Your task to perform on an android device: turn on location history Image 0: 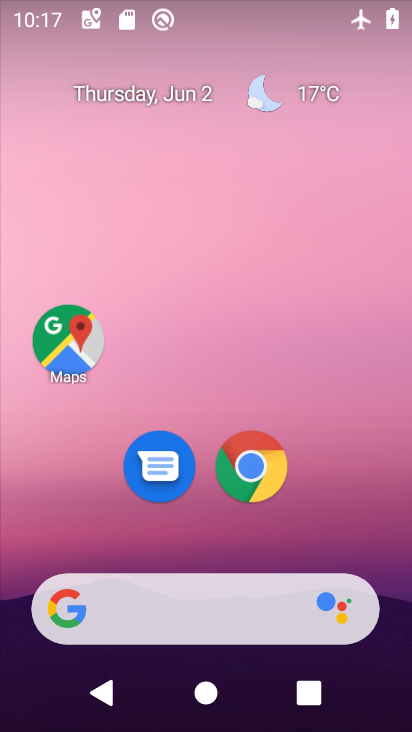
Step 0: drag from (320, 539) to (322, 82)
Your task to perform on an android device: turn on location history Image 1: 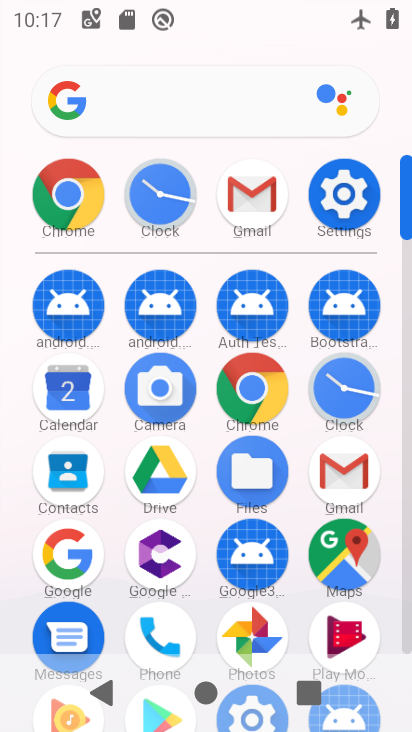
Step 1: click (323, 185)
Your task to perform on an android device: turn on location history Image 2: 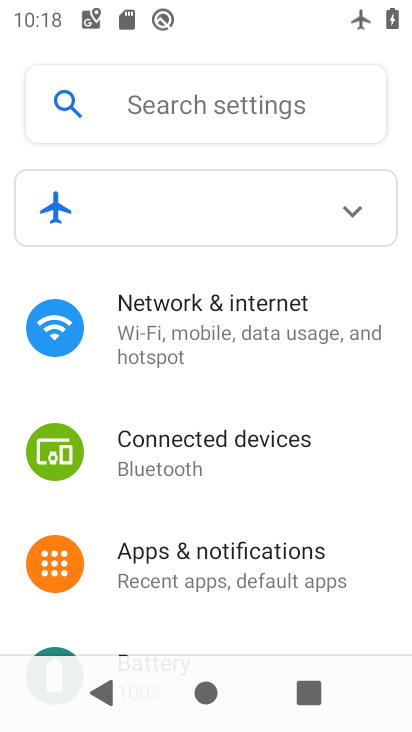
Step 2: drag from (237, 533) to (269, 245)
Your task to perform on an android device: turn on location history Image 3: 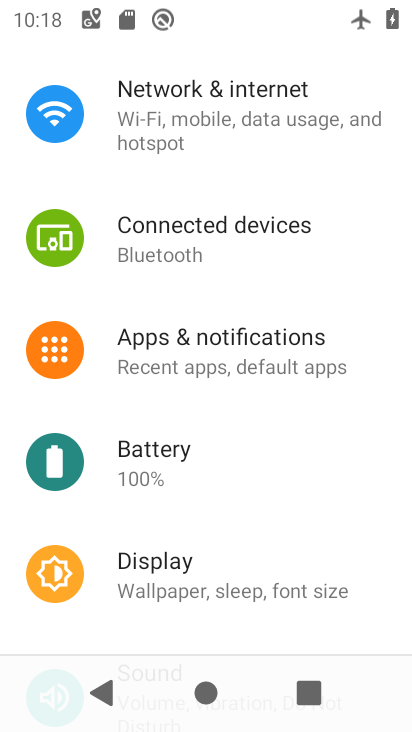
Step 3: drag from (232, 531) to (252, 333)
Your task to perform on an android device: turn on location history Image 4: 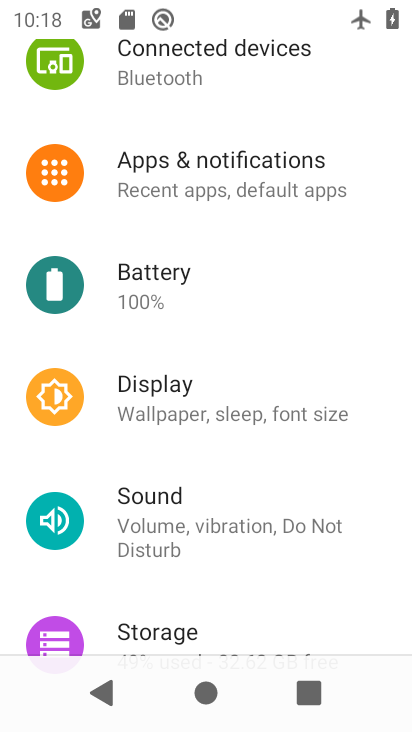
Step 4: drag from (210, 448) to (209, 294)
Your task to perform on an android device: turn on location history Image 5: 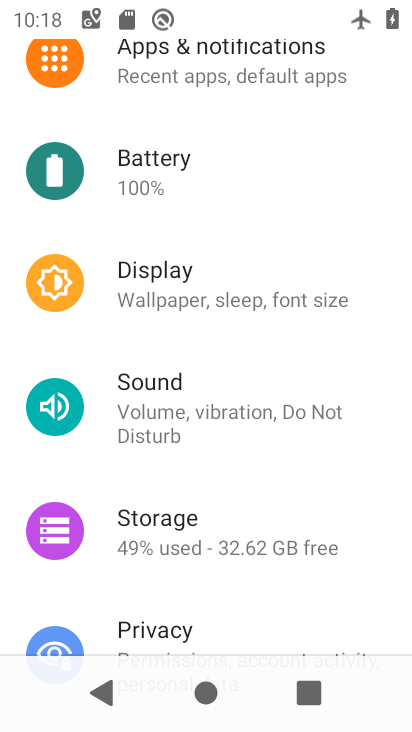
Step 5: drag from (256, 532) to (284, 183)
Your task to perform on an android device: turn on location history Image 6: 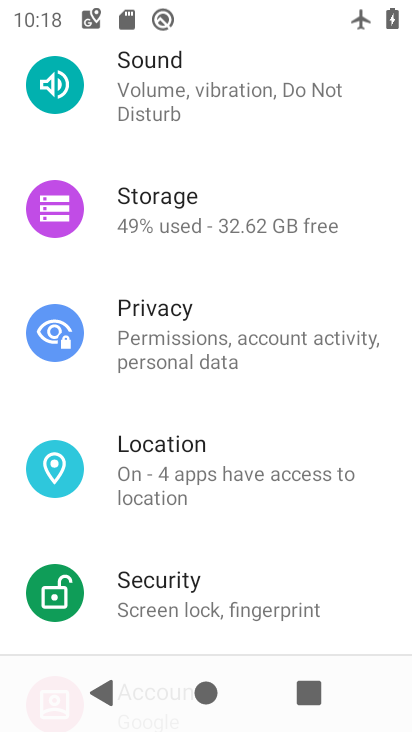
Step 6: click (209, 464)
Your task to perform on an android device: turn on location history Image 7: 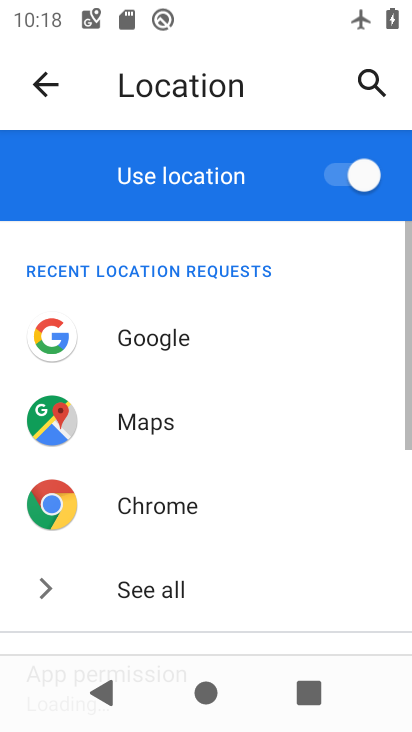
Step 7: drag from (201, 549) to (258, 301)
Your task to perform on an android device: turn on location history Image 8: 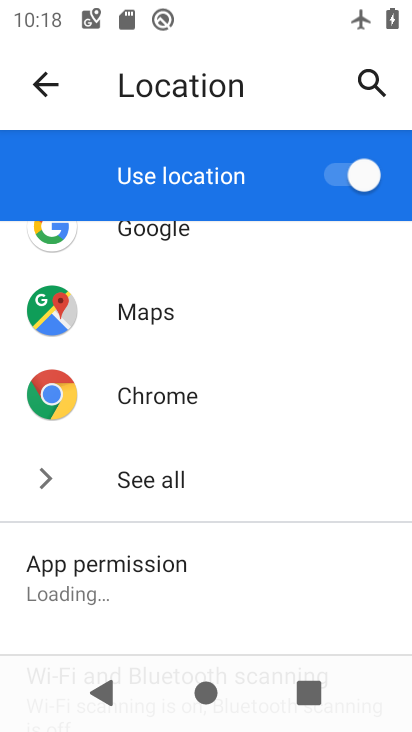
Step 8: drag from (242, 571) to (241, 259)
Your task to perform on an android device: turn on location history Image 9: 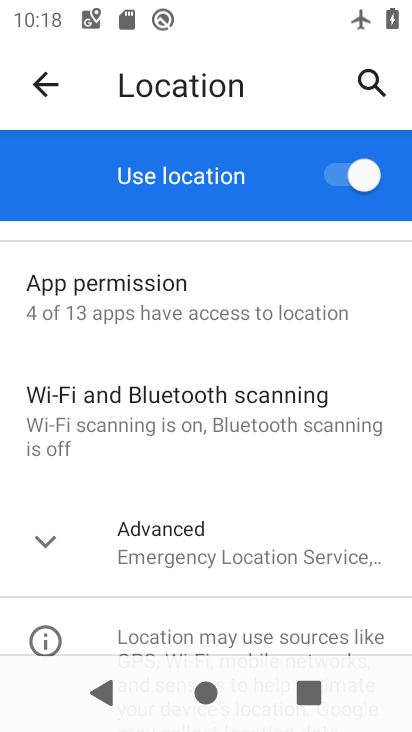
Step 9: click (197, 545)
Your task to perform on an android device: turn on location history Image 10: 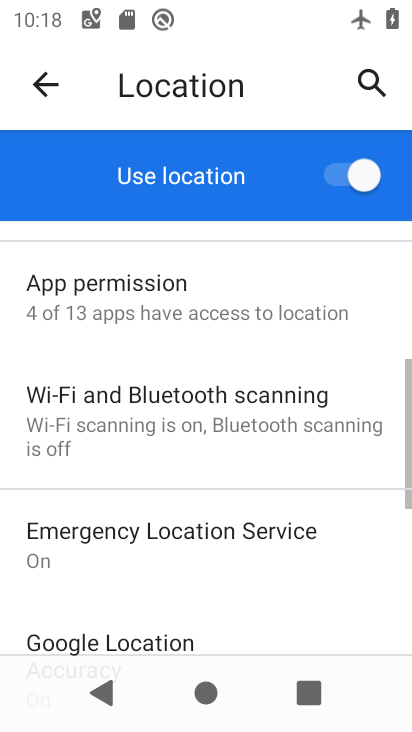
Step 10: drag from (212, 562) to (264, 274)
Your task to perform on an android device: turn on location history Image 11: 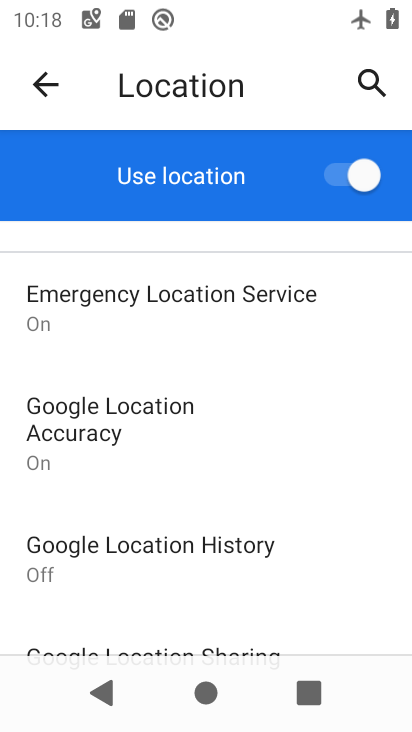
Step 11: click (185, 552)
Your task to perform on an android device: turn on location history Image 12: 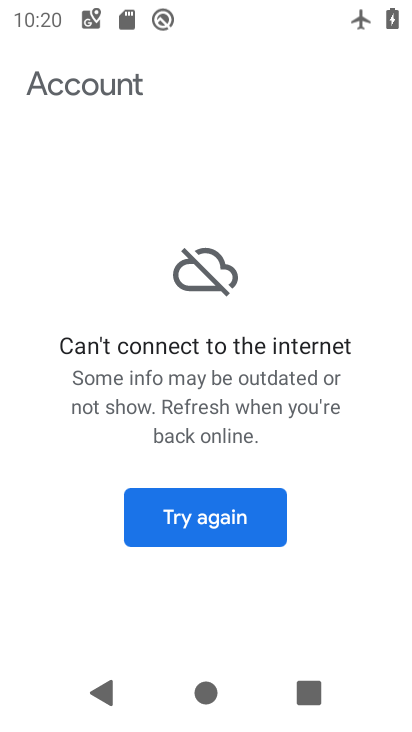
Step 12: task complete